Your task to perform on an android device: turn on airplane mode Image 0: 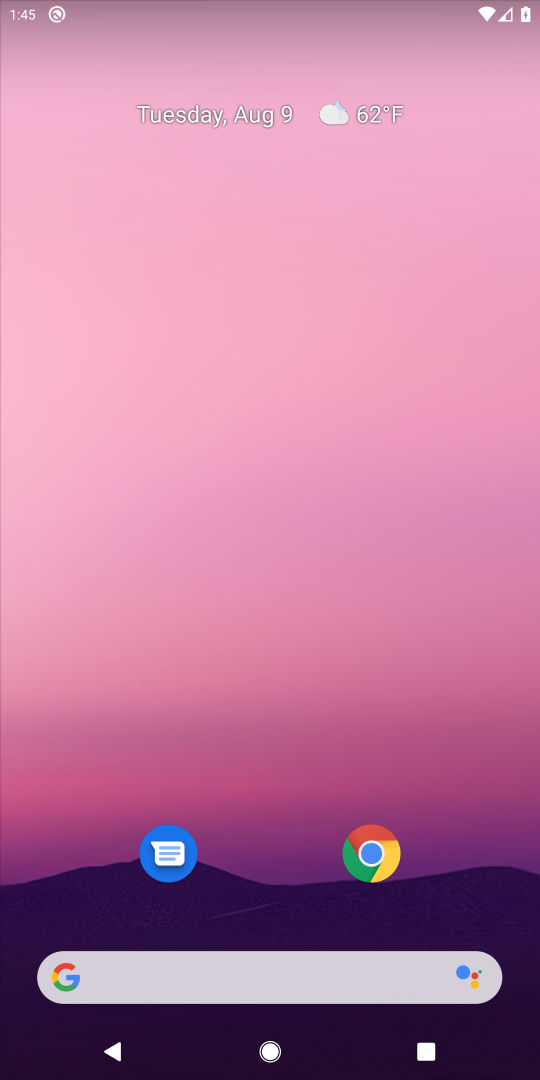
Step 0: press home button
Your task to perform on an android device: turn on airplane mode Image 1: 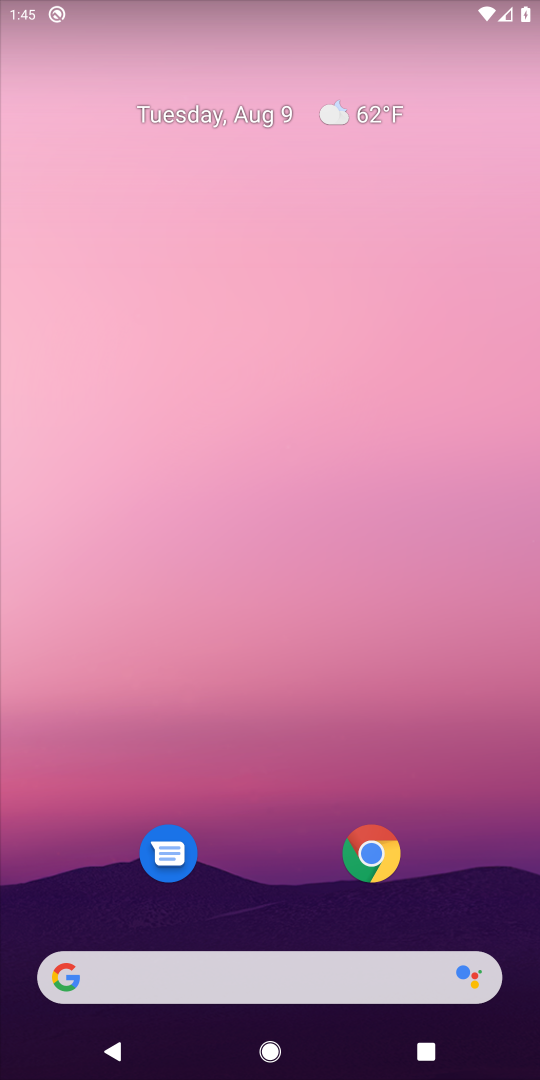
Step 1: drag from (288, 8) to (328, 611)
Your task to perform on an android device: turn on airplane mode Image 2: 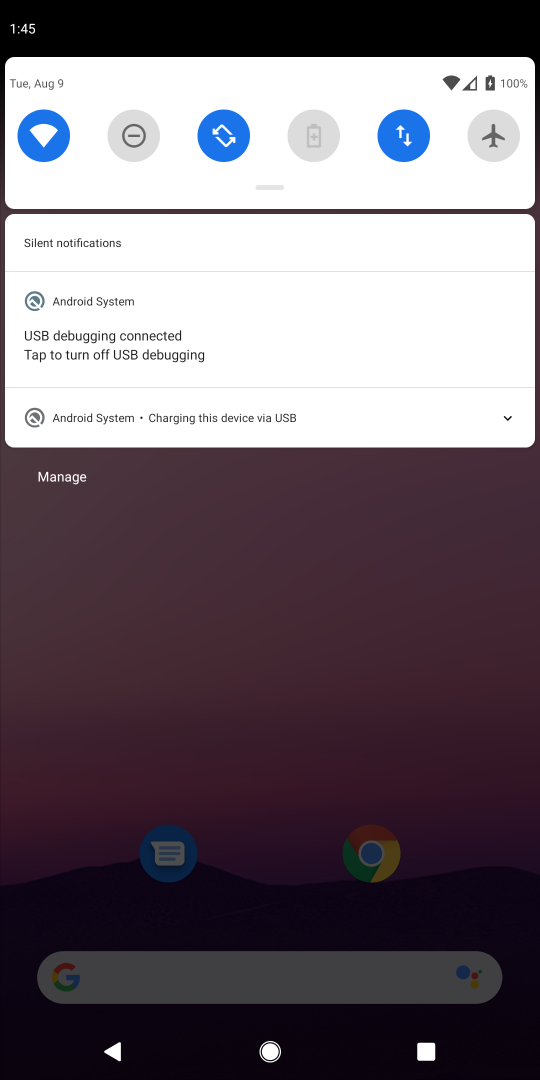
Step 2: click (489, 135)
Your task to perform on an android device: turn on airplane mode Image 3: 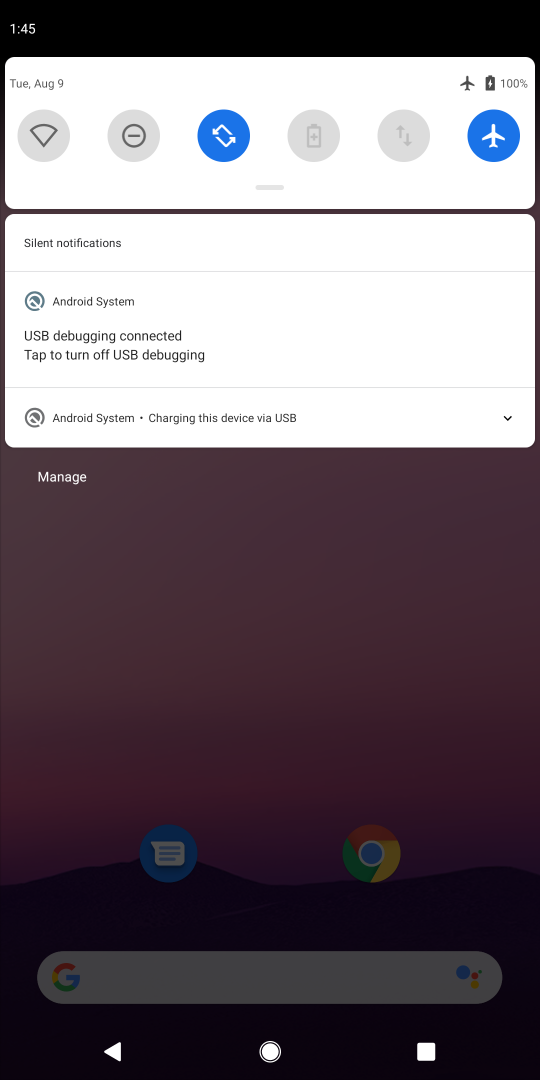
Step 3: task complete